Your task to perform on an android device: open app "eBay: The shopping marketplace" (install if not already installed) Image 0: 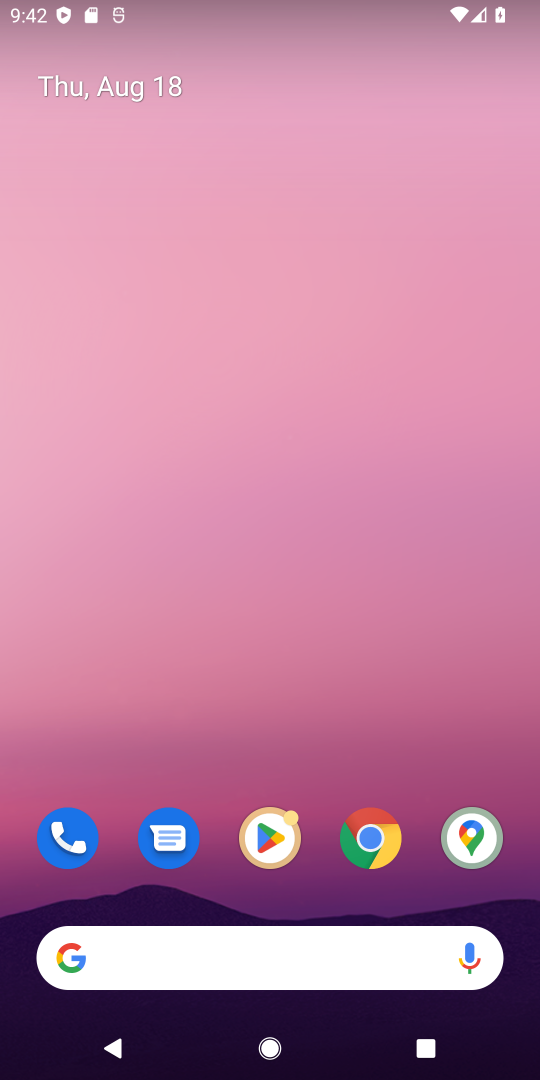
Step 0: click (291, 834)
Your task to perform on an android device: open app "eBay: The shopping marketplace" (install if not already installed) Image 1: 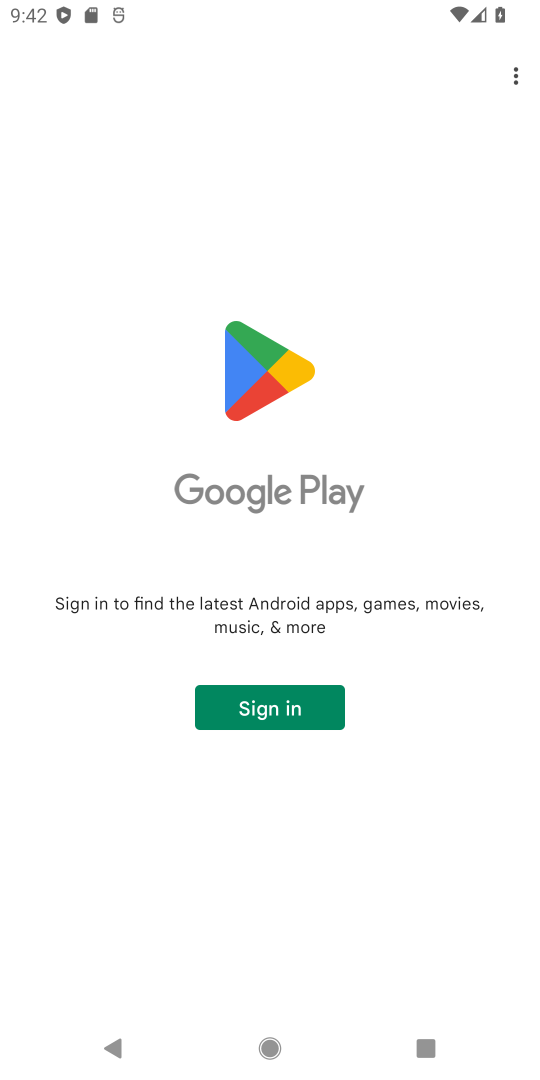
Step 1: click (332, 698)
Your task to perform on an android device: open app "eBay: The shopping marketplace" (install if not already installed) Image 2: 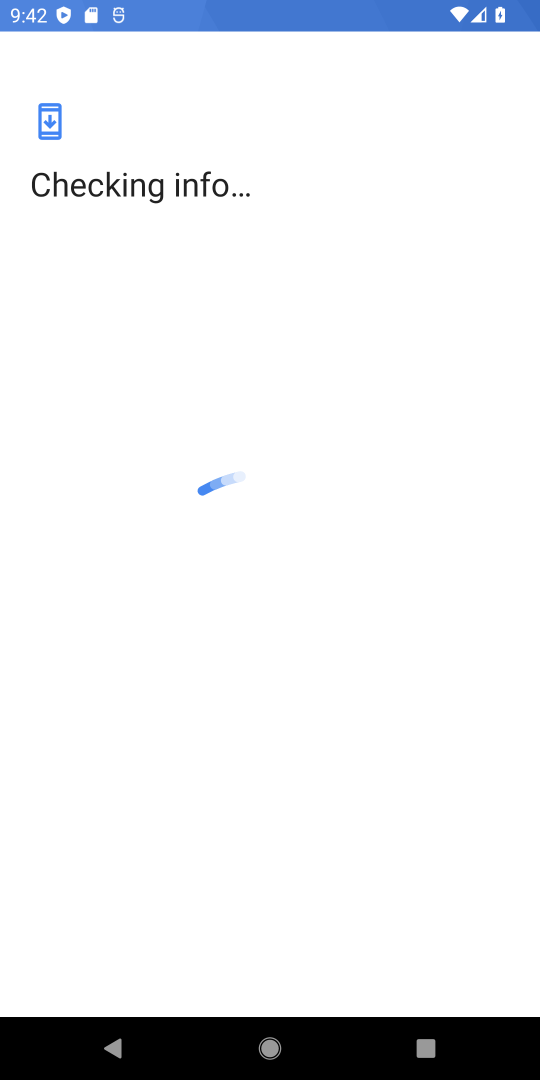
Step 2: task complete